Your task to perform on an android device: change notifications settings Image 0: 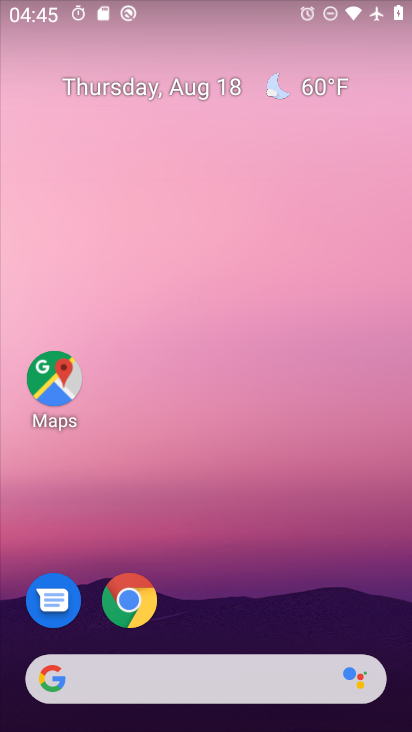
Step 0: press home button
Your task to perform on an android device: change notifications settings Image 1: 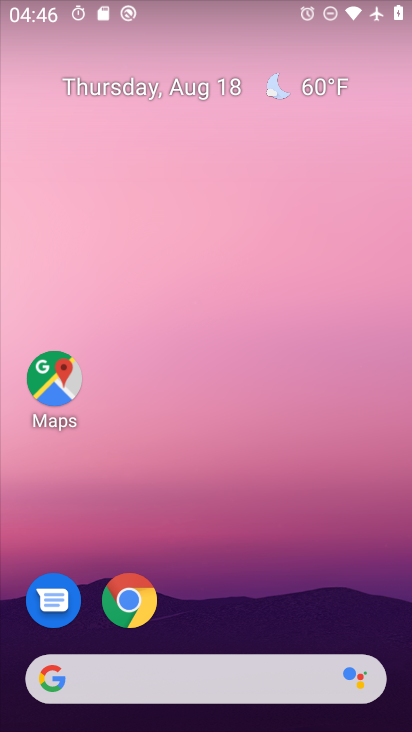
Step 1: drag from (202, 639) to (202, 2)
Your task to perform on an android device: change notifications settings Image 2: 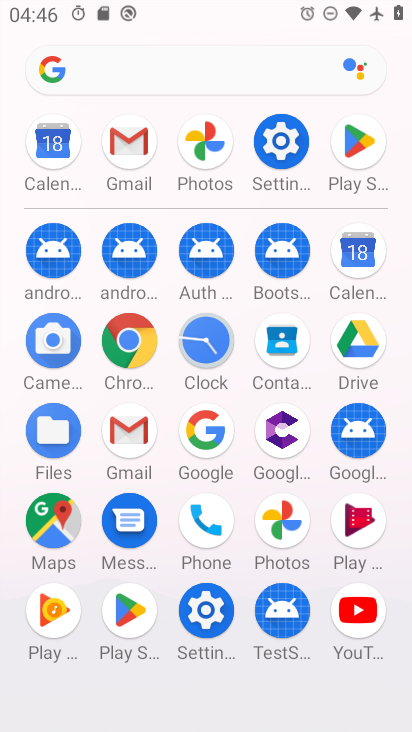
Step 2: click (287, 142)
Your task to perform on an android device: change notifications settings Image 3: 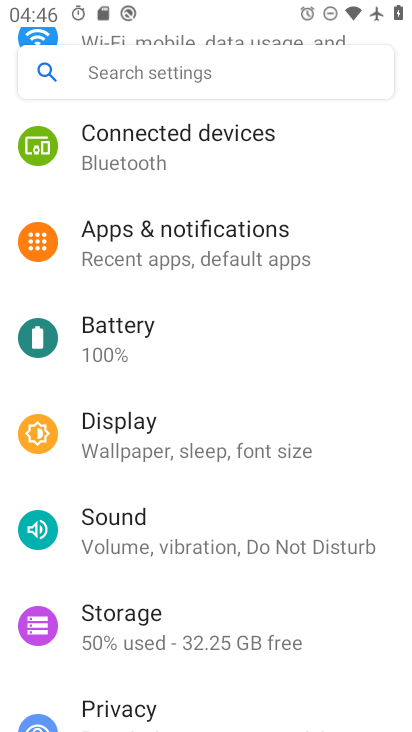
Step 3: click (187, 237)
Your task to perform on an android device: change notifications settings Image 4: 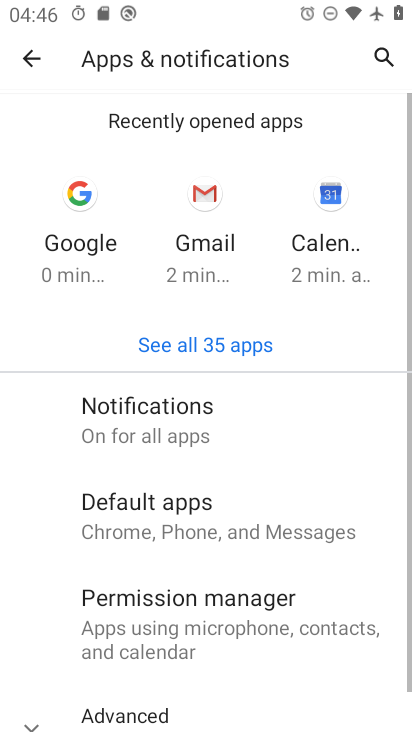
Step 4: click (152, 415)
Your task to perform on an android device: change notifications settings Image 5: 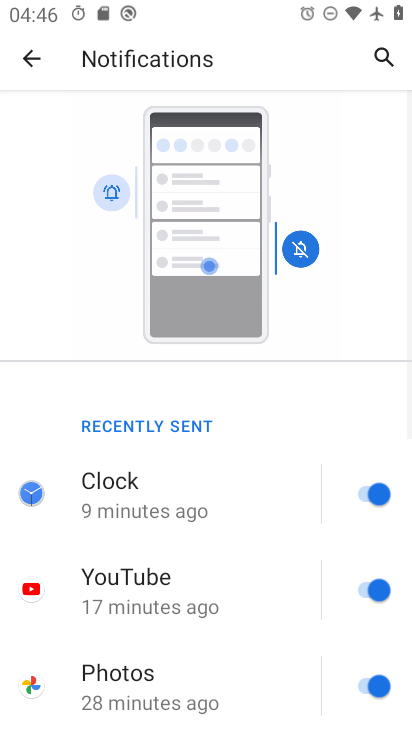
Step 5: drag from (263, 650) to (8, 406)
Your task to perform on an android device: change notifications settings Image 6: 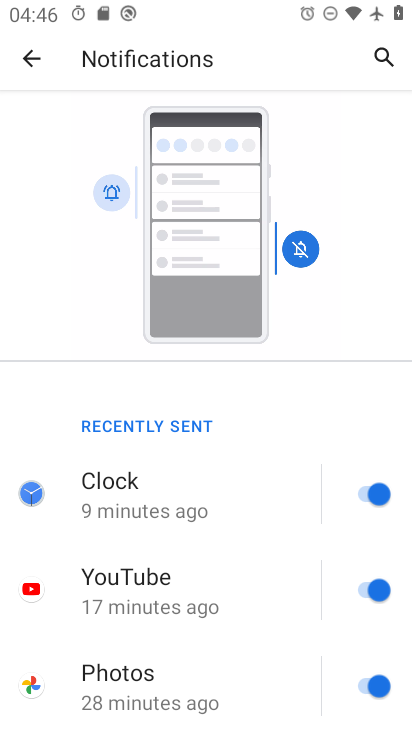
Step 6: click (375, 493)
Your task to perform on an android device: change notifications settings Image 7: 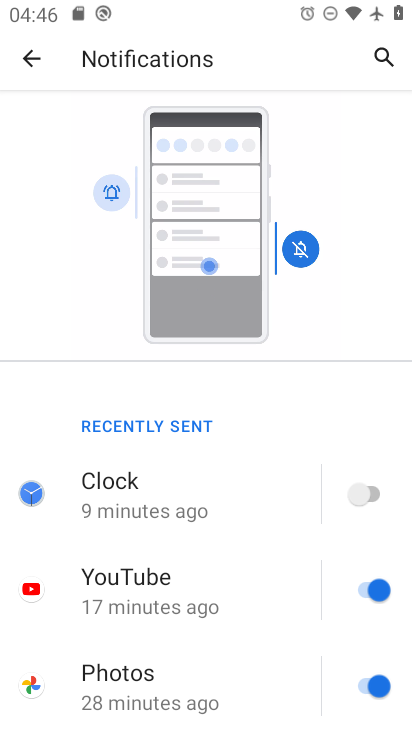
Step 7: task complete